Your task to perform on an android device: turn off wifi Image 0: 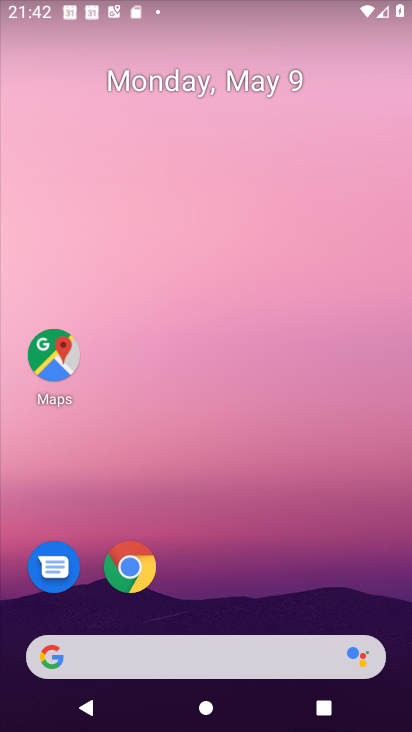
Step 0: drag from (204, 603) to (207, 87)
Your task to perform on an android device: turn off wifi Image 1: 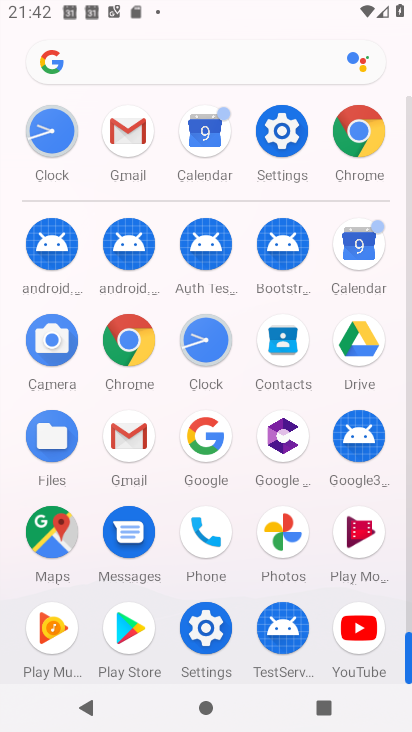
Step 1: click (197, 639)
Your task to perform on an android device: turn off wifi Image 2: 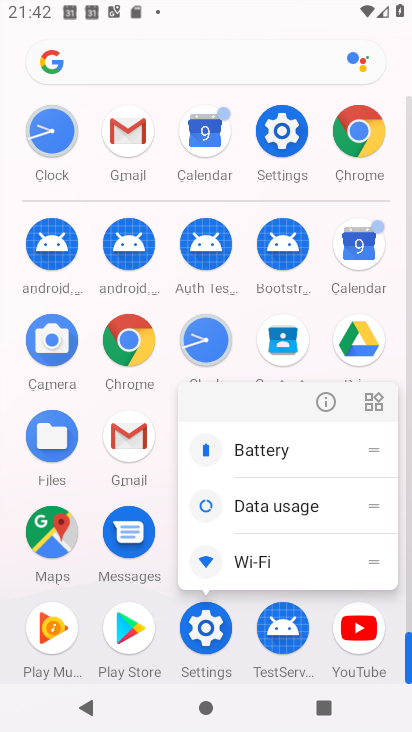
Step 2: click (327, 389)
Your task to perform on an android device: turn off wifi Image 3: 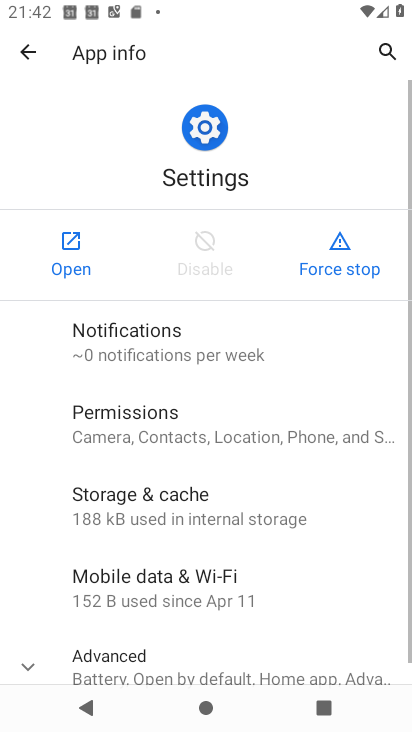
Step 3: click (78, 230)
Your task to perform on an android device: turn off wifi Image 4: 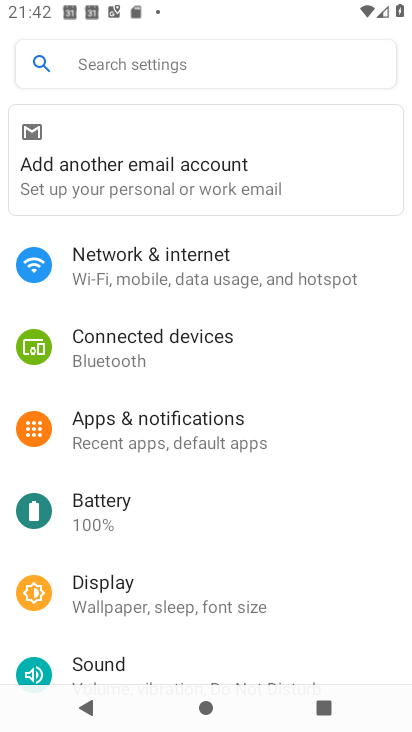
Step 4: click (136, 268)
Your task to perform on an android device: turn off wifi Image 5: 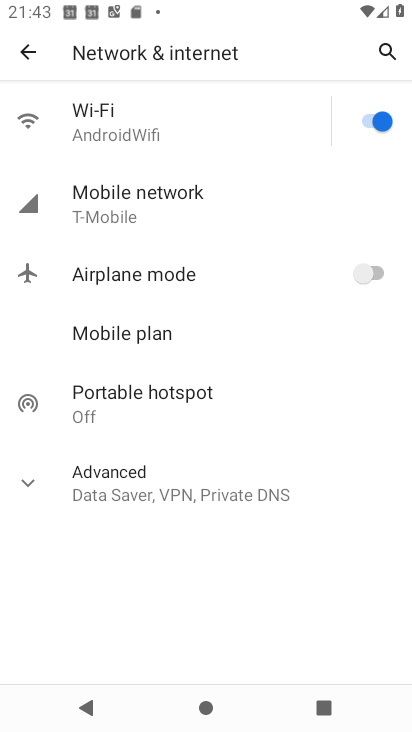
Step 5: click (375, 122)
Your task to perform on an android device: turn off wifi Image 6: 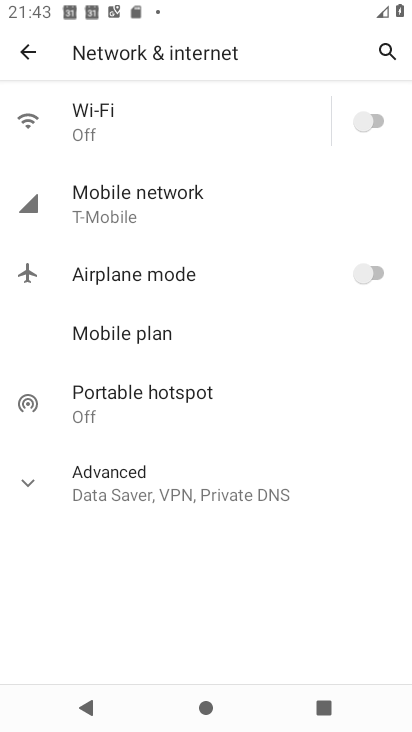
Step 6: task complete